Your task to perform on an android device: Go to CNN.com Image 0: 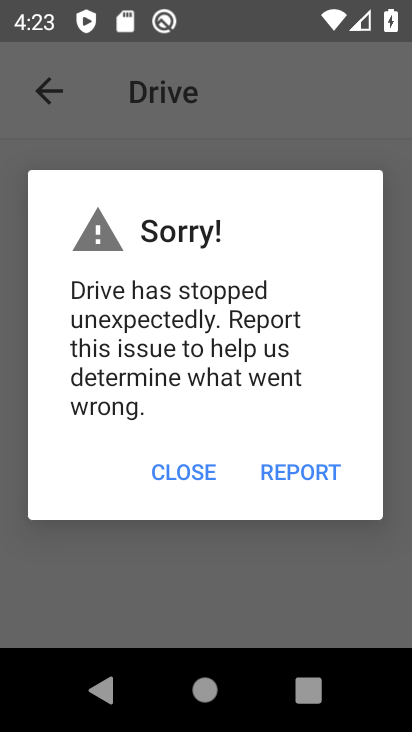
Step 0: click (175, 466)
Your task to perform on an android device: Go to CNN.com Image 1: 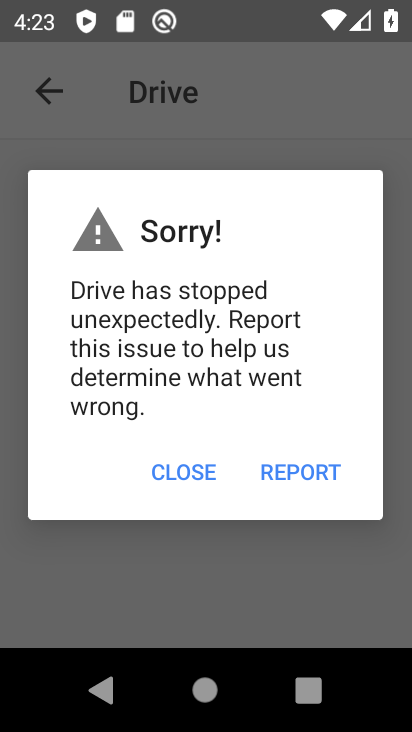
Step 1: click (175, 466)
Your task to perform on an android device: Go to CNN.com Image 2: 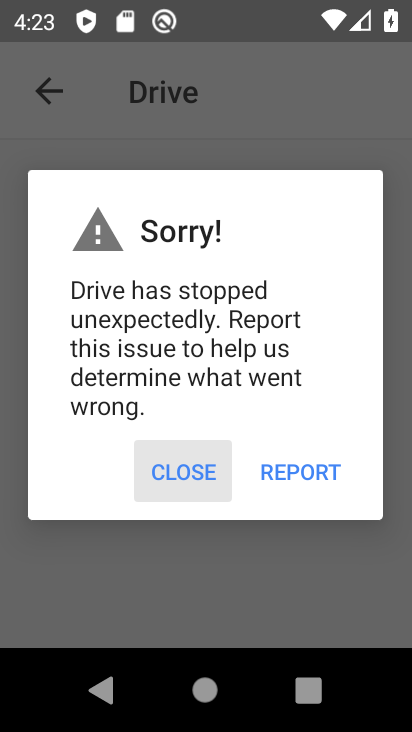
Step 2: click (176, 468)
Your task to perform on an android device: Go to CNN.com Image 3: 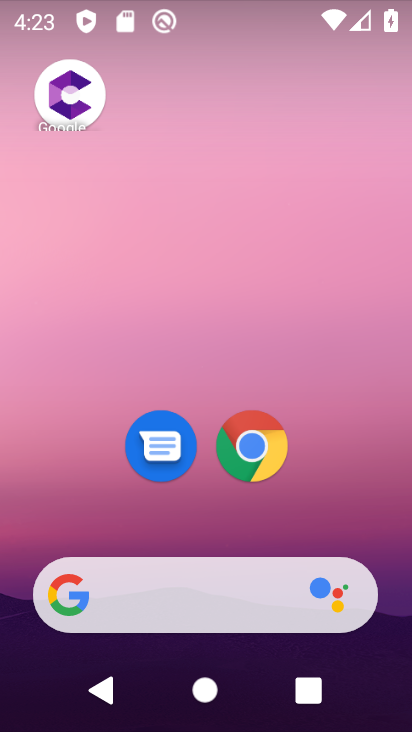
Step 3: drag from (273, 697) to (169, 195)
Your task to perform on an android device: Go to CNN.com Image 4: 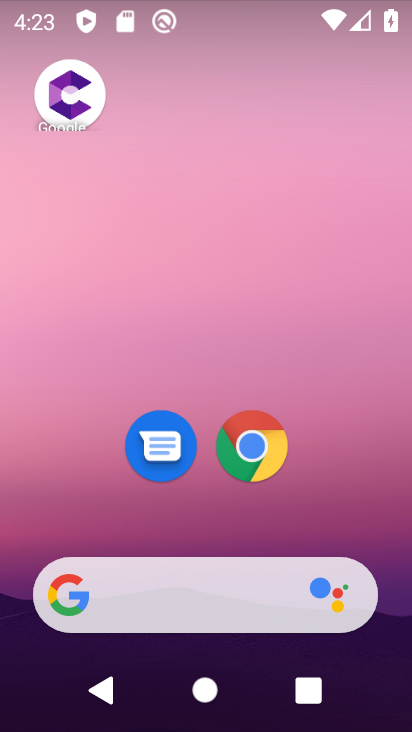
Step 4: drag from (247, 643) to (196, 228)
Your task to perform on an android device: Go to CNN.com Image 5: 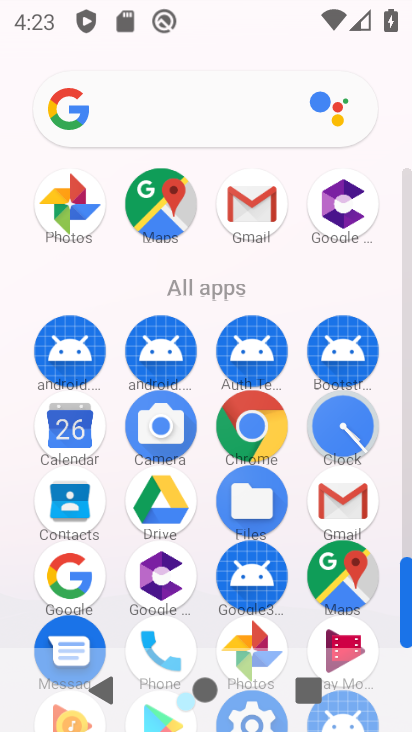
Step 5: drag from (227, 381) to (203, 263)
Your task to perform on an android device: Go to CNN.com Image 6: 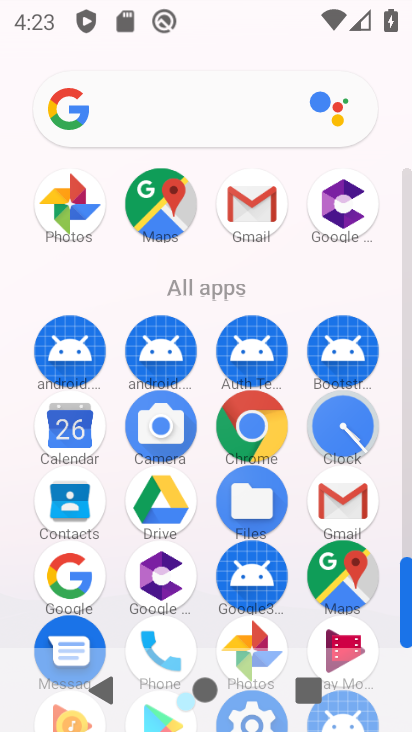
Step 6: click (250, 429)
Your task to perform on an android device: Go to CNN.com Image 7: 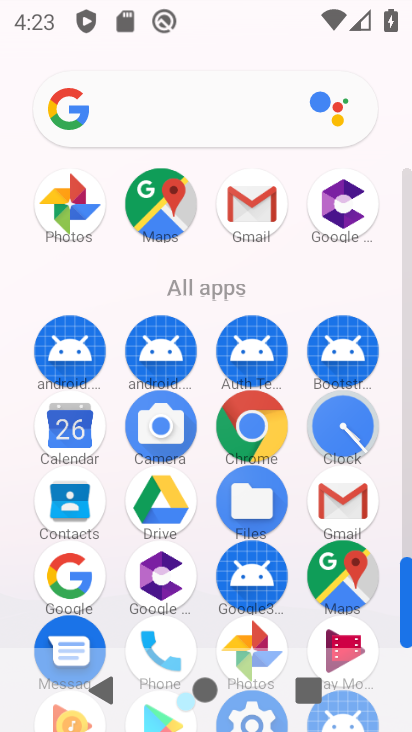
Step 7: click (252, 429)
Your task to perform on an android device: Go to CNN.com Image 8: 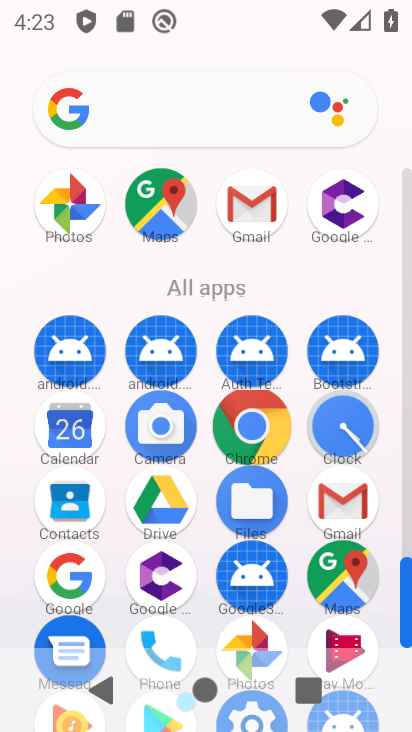
Step 8: click (246, 417)
Your task to perform on an android device: Go to CNN.com Image 9: 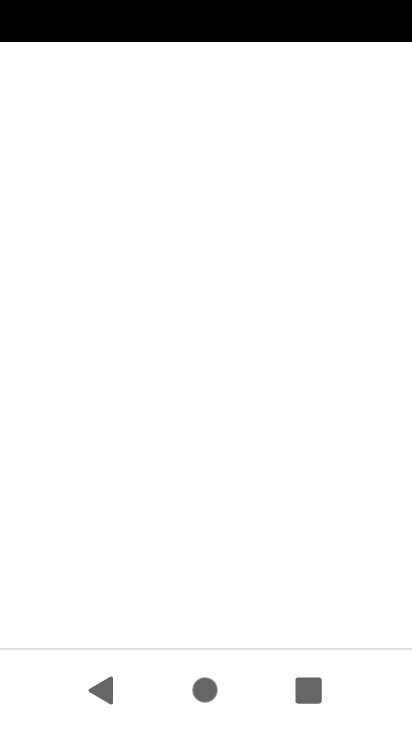
Step 9: click (245, 417)
Your task to perform on an android device: Go to CNN.com Image 10: 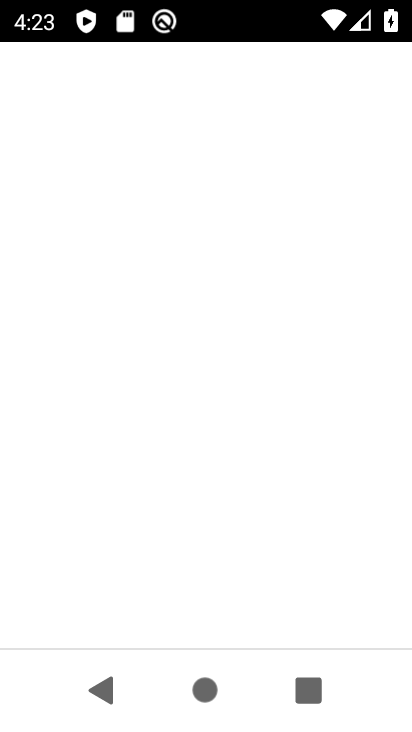
Step 10: click (245, 417)
Your task to perform on an android device: Go to CNN.com Image 11: 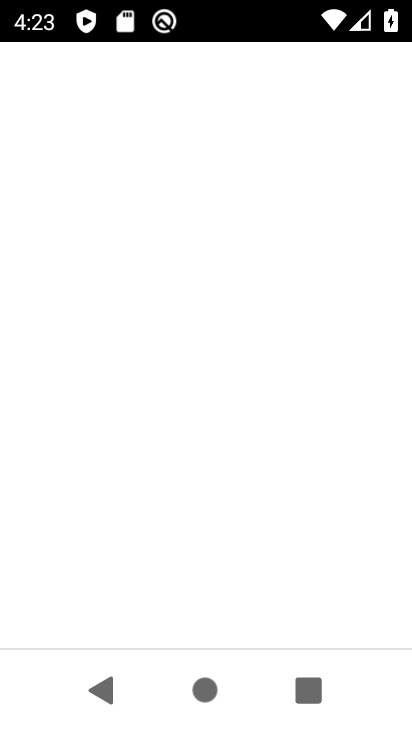
Step 11: click (245, 417)
Your task to perform on an android device: Go to CNN.com Image 12: 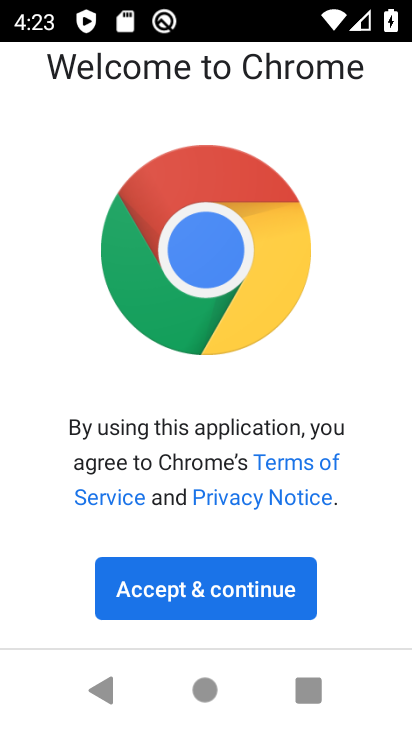
Step 12: click (215, 596)
Your task to perform on an android device: Go to CNN.com Image 13: 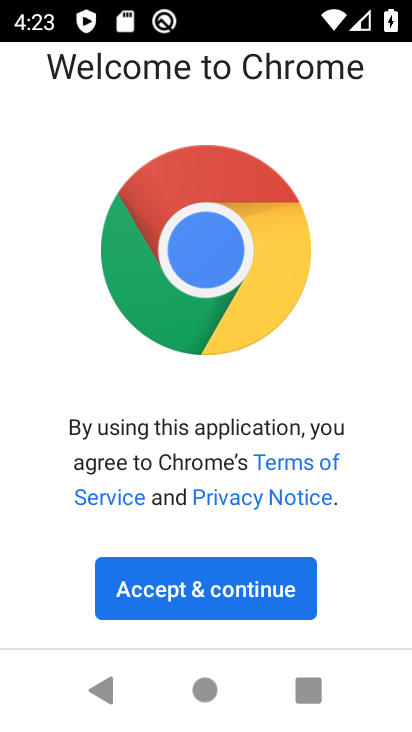
Step 13: click (213, 594)
Your task to perform on an android device: Go to CNN.com Image 14: 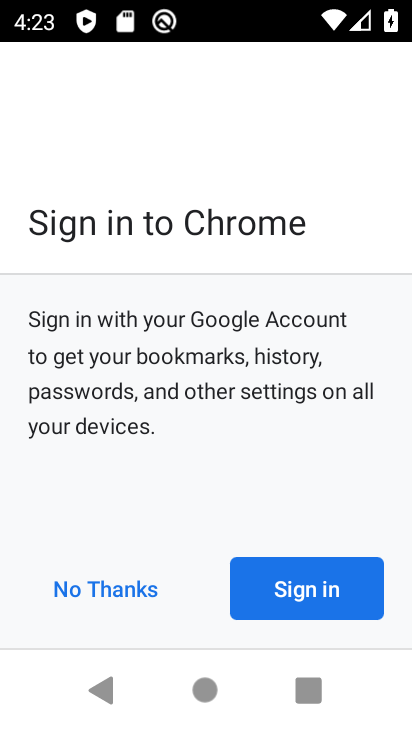
Step 14: click (209, 585)
Your task to perform on an android device: Go to CNN.com Image 15: 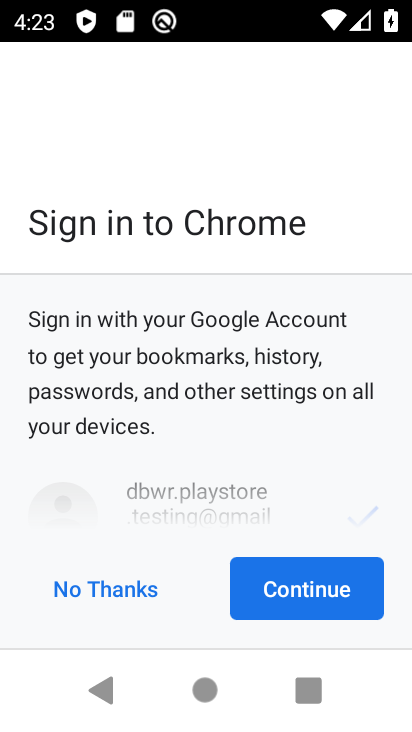
Step 15: click (241, 596)
Your task to perform on an android device: Go to CNN.com Image 16: 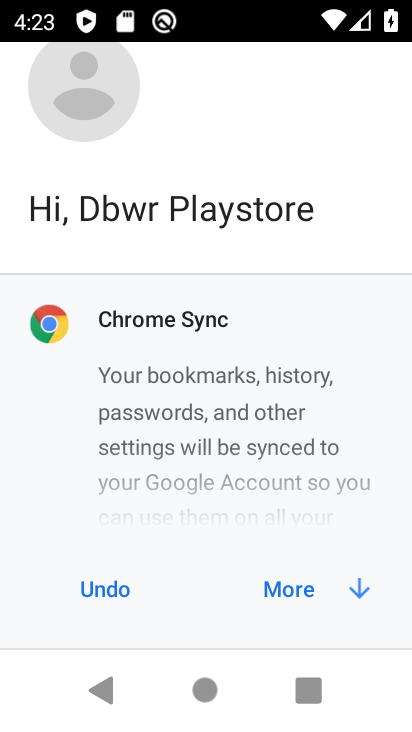
Step 16: click (243, 593)
Your task to perform on an android device: Go to CNN.com Image 17: 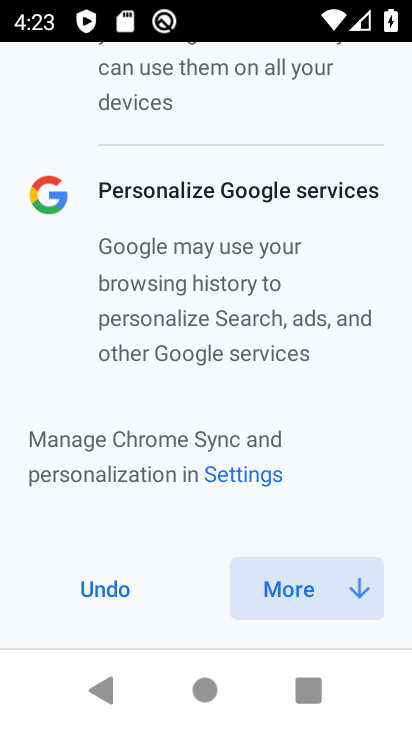
Step 17: click (282, 584)
Your task to perform on an android device: Go to CNN.com Image 18: 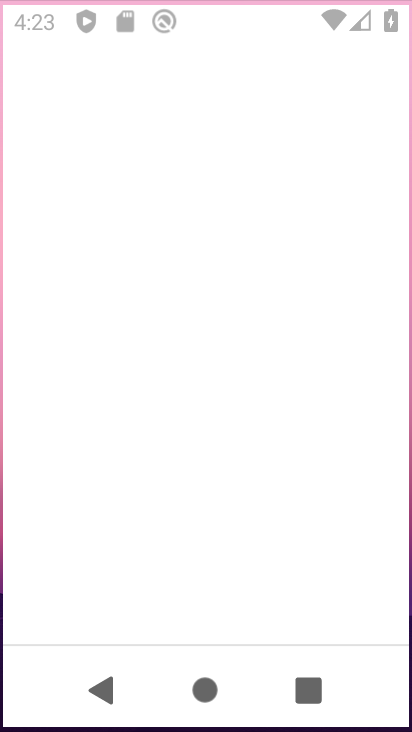
Step 18: click (330, 591)
Your task to perform on an android device: Go to CNN.com Image 19: 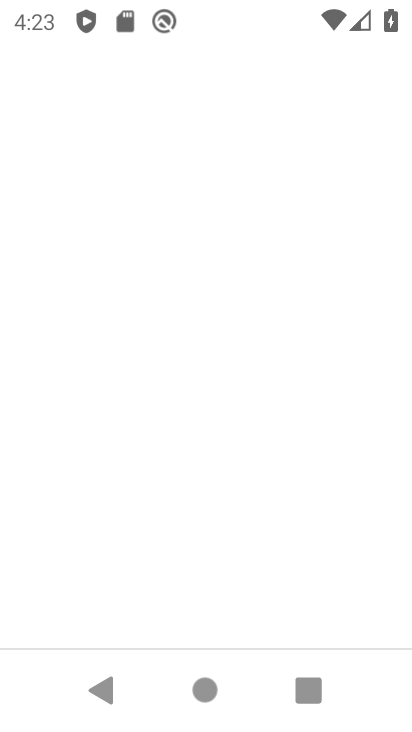
Step 19: click (125, 92)
Your task to perform on an android device: Go to CNN.com Image 20: 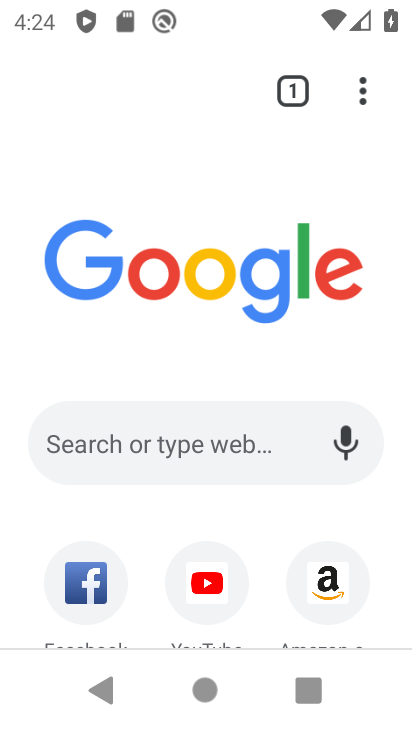
Step 20: click (105, 87)
Your task to perform on an android device: Go to CNN.com Image 21: 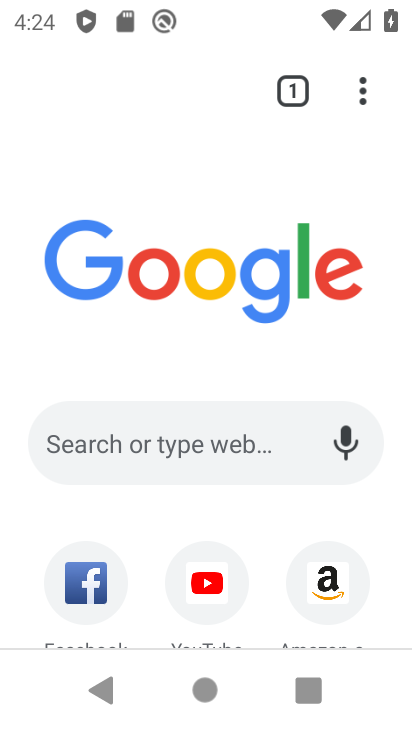
Step 21: click (208, 171)
Your task to perform on an android device: Go to CNN.com Image 22: 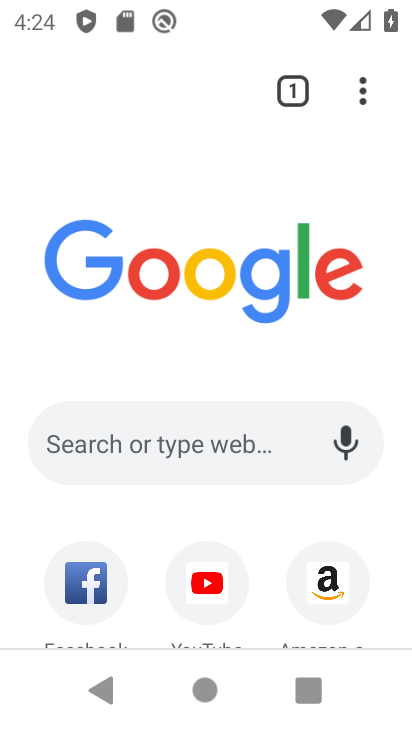
Step 22: drag from (276, 499) to (232, 204)
Your task to perform on an android device: Go to CNN.com Image 23: 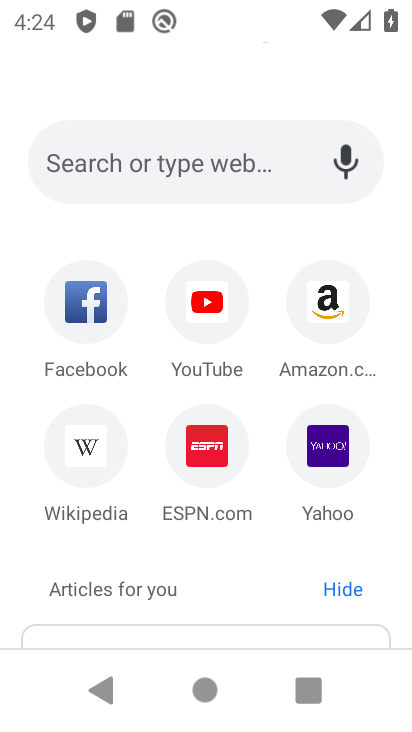
Step 23: drag from (245, 543) to (206, 267)
Your task to perform on an android device: Go to CNN.com Image 24: 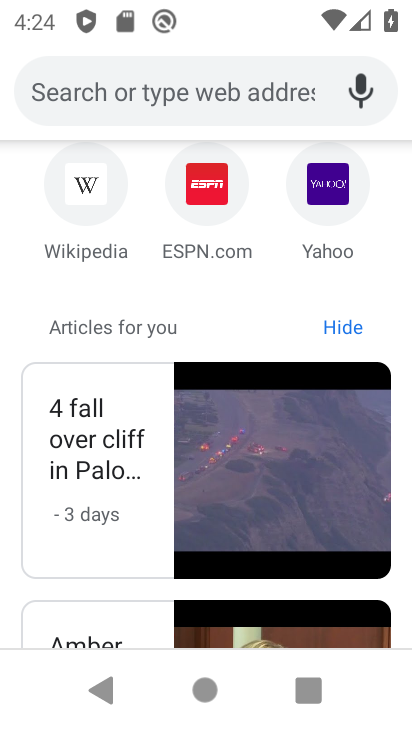
Step 24: drag from (49, 92) to (80, 113)
Your task to perform on an android device: Go to CNN.com Image 25: 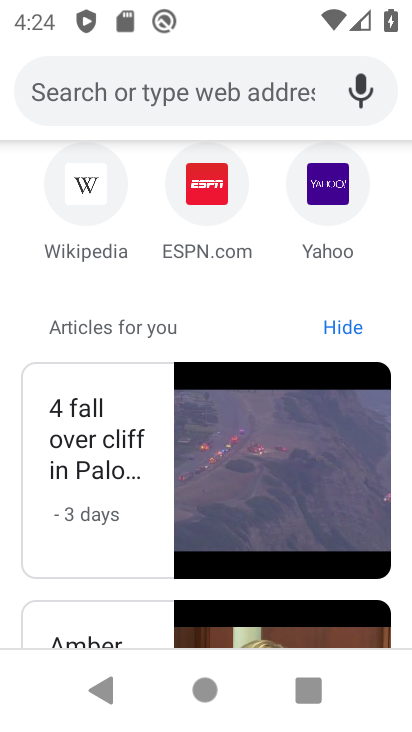
Step 25: click (51, 95)
Your task to perform on an android device: Go to CNN.com Image 26: 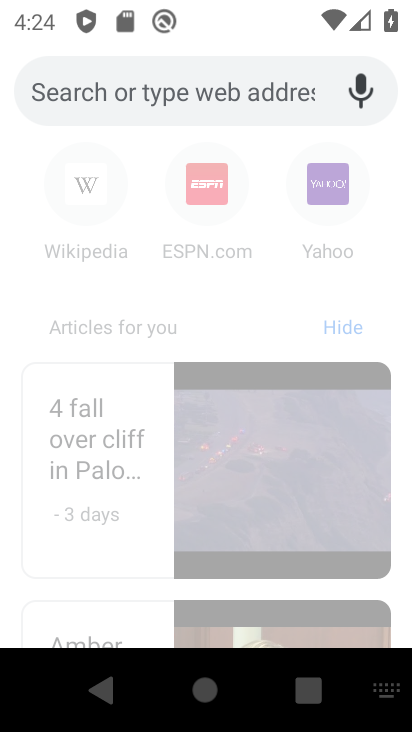
Step 26: type "cnn.com"
Your task to perform on an android device: Go to CNN.com Image 27: 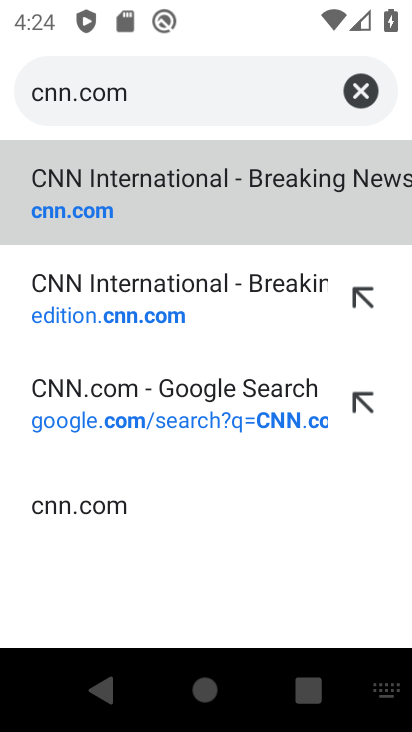
Step 27: click (98, 197)
Your task to perform on an android device: Go to CNN.com Image 28: 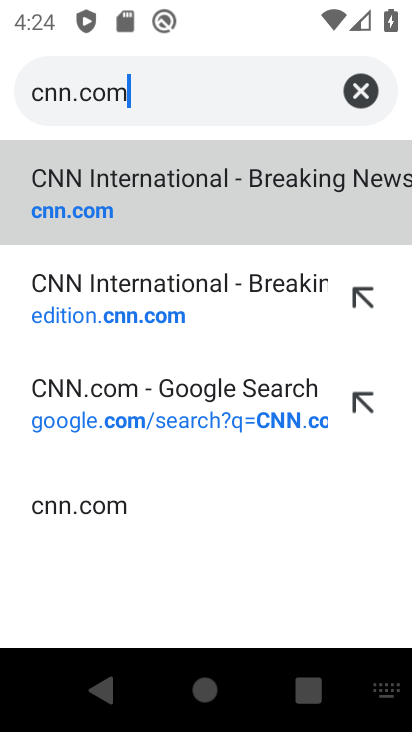
Step 28: click (98, 198)
Your task to perform on an android device: Go to CNN.com Image 29: 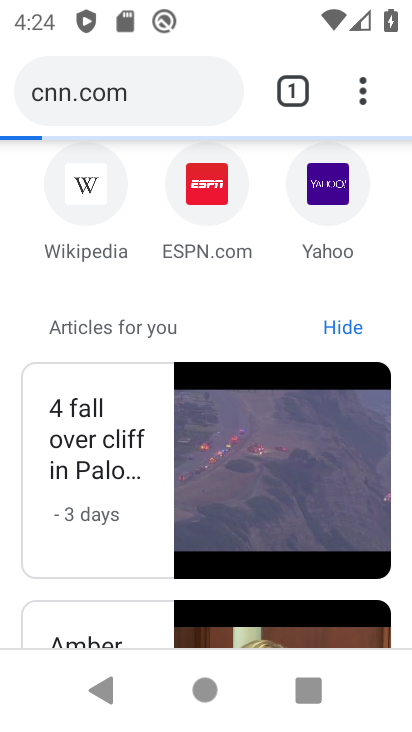
Step 29: click (98, 199)
Your task to perform on an android device: Go to CNN.com Image 30: 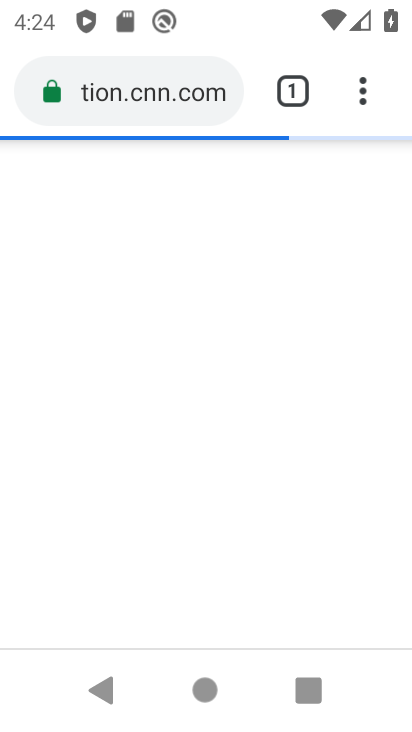
Step 30: task complete